Your task to perform on an android device: Open the clock Image 0: 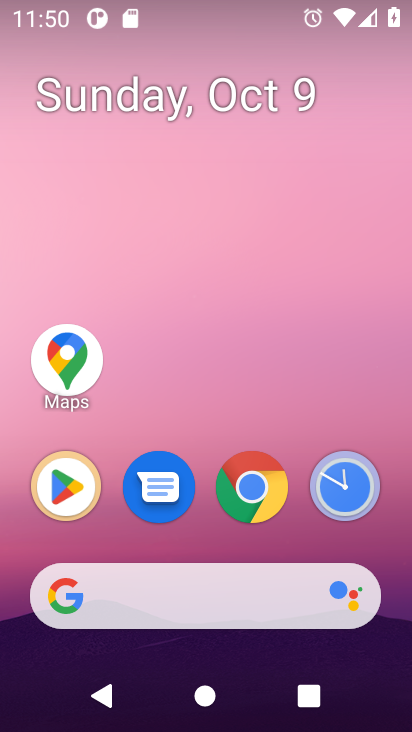
Step 0: drag from (236, 560) to (208, 49)
Your task to perform on an android device: Open the clock Image 1: 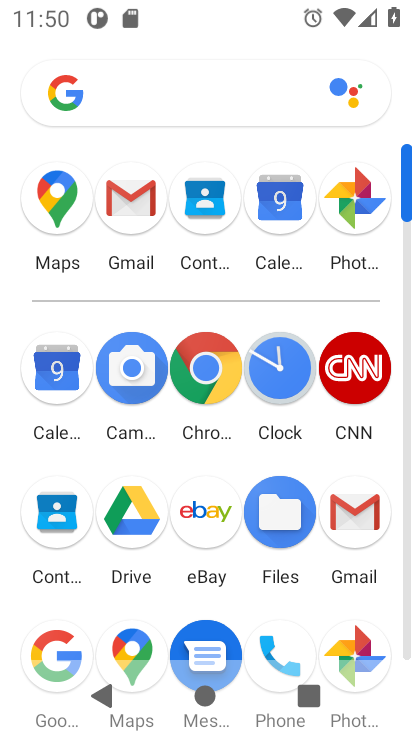
Step 1: click (283, 377)
Your task to perform on an android device: Open the clock Image 2: 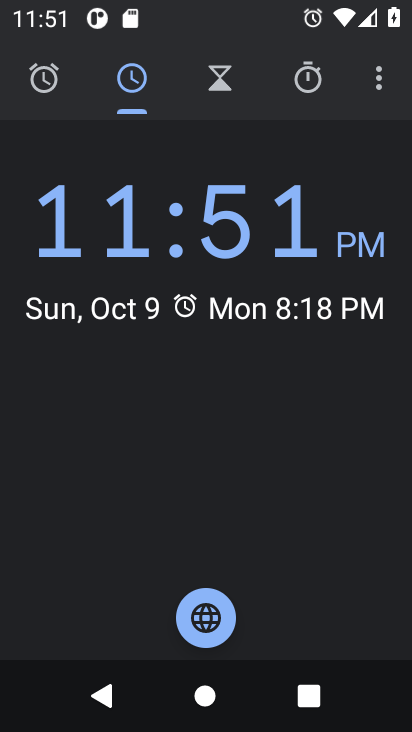
Step 2: task complete